Your task to perform on an android device: turn on wifi Image 0: 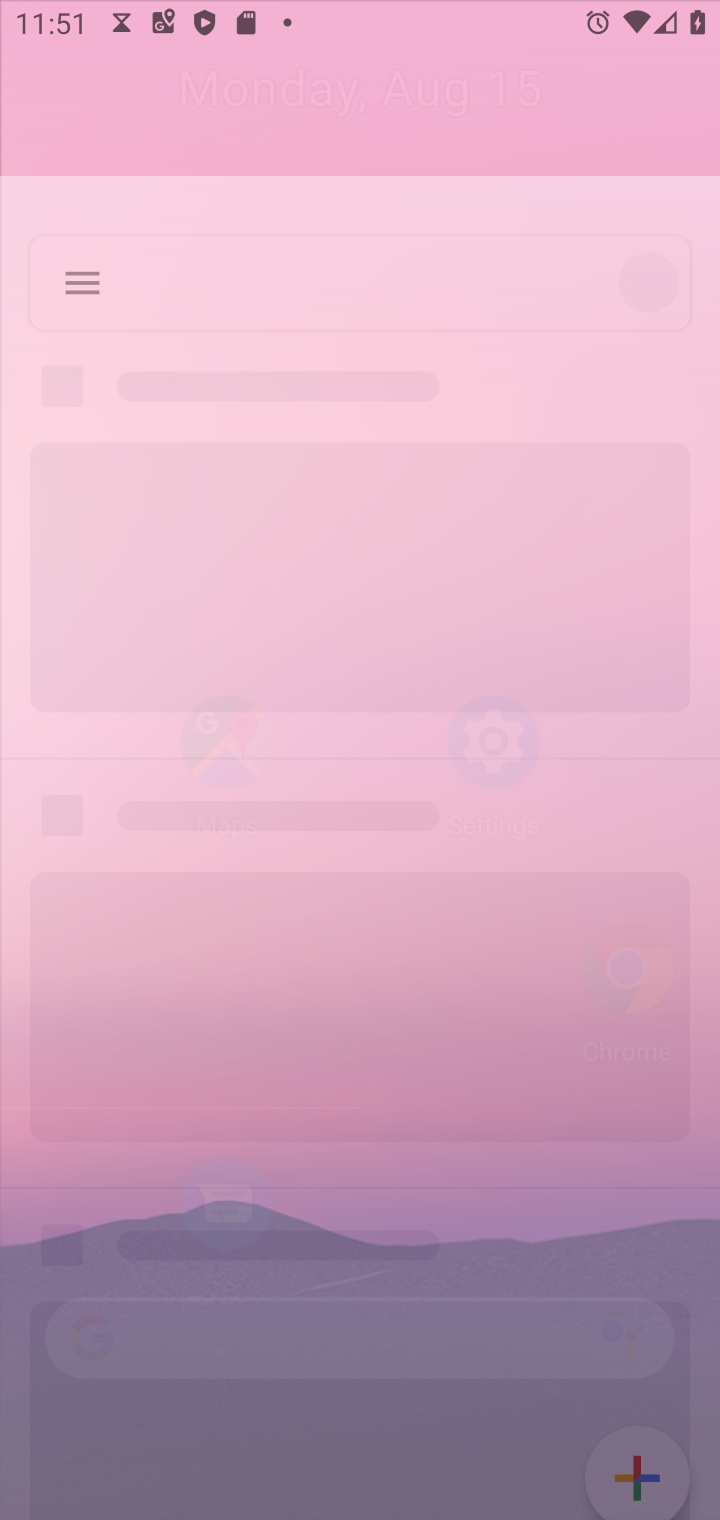
Step 0: press home button
Your task to perform on an android device: turn on wifi Image 1: 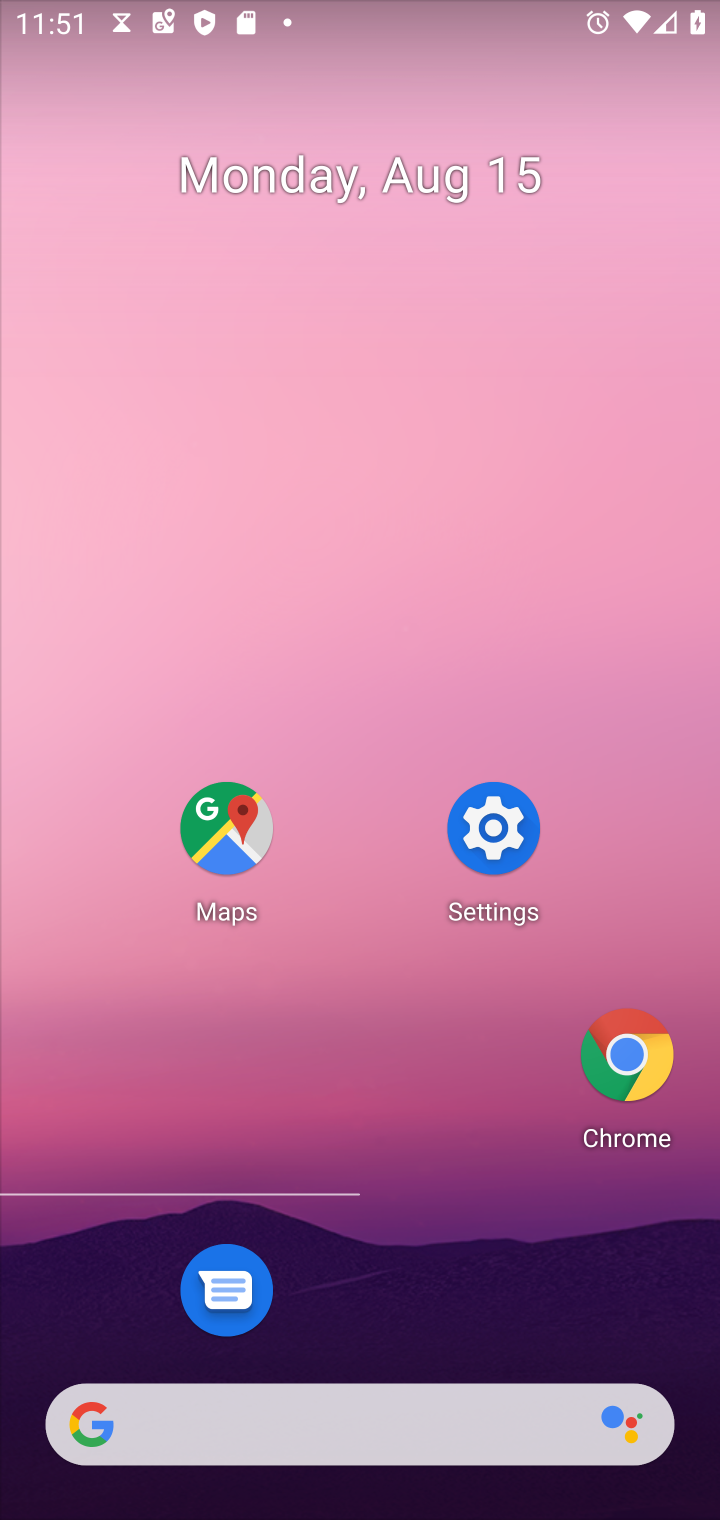
Step 1: click (480, 827)
Your task to perform on an android device: turn on wifi Image 2: 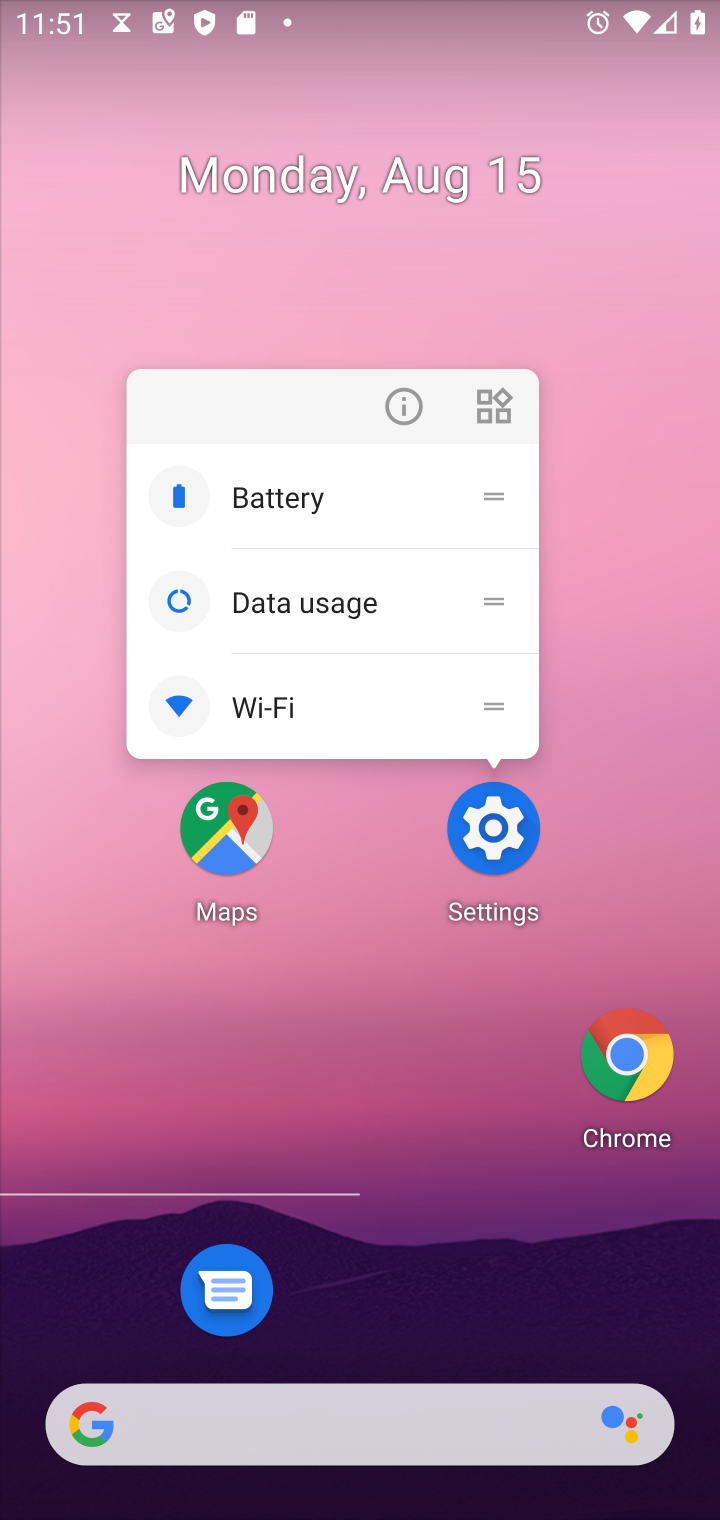
Step 2: click (480, 831)
Your task to perform on an android device: turn on wifi Image 3: 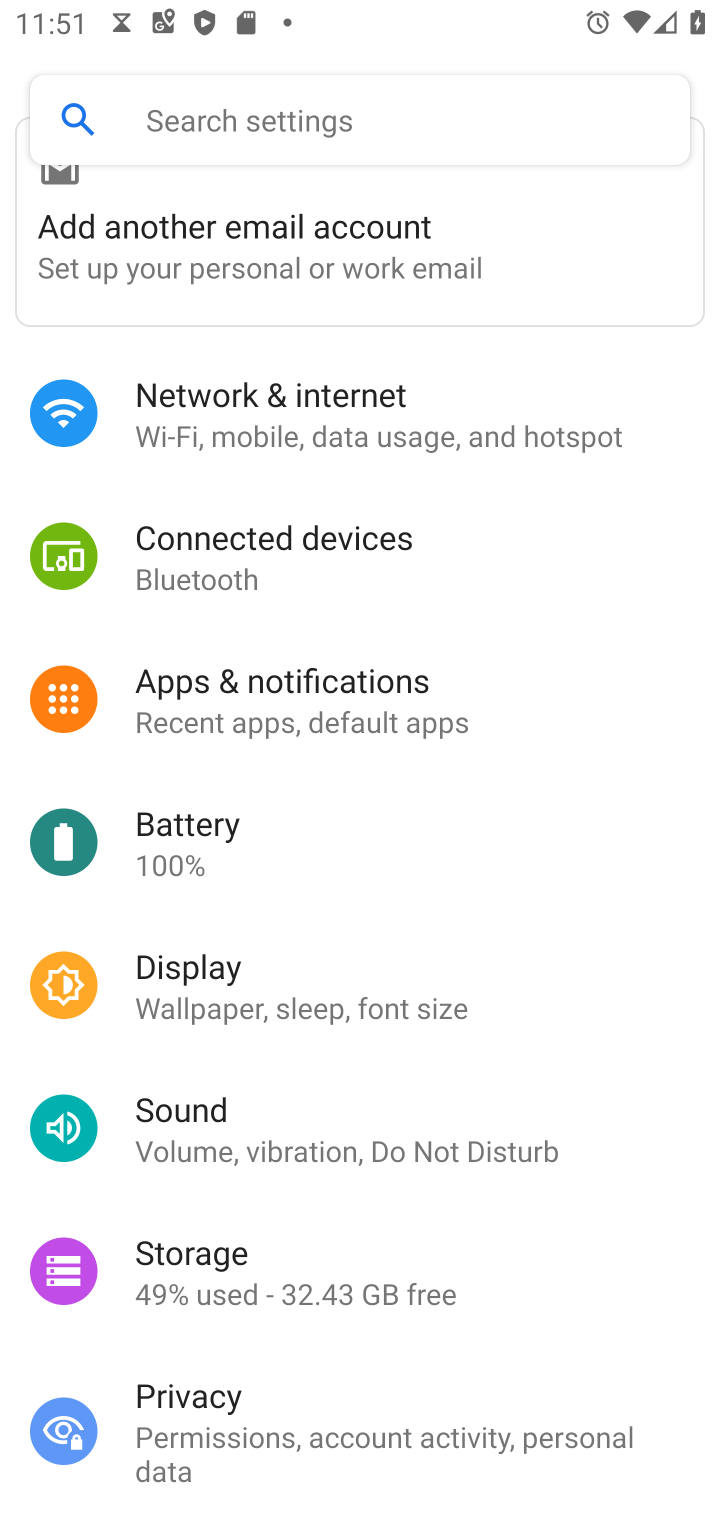
Step 3: click (287, 417)
Your task to perform on an android device: turn on wifi Image 4: 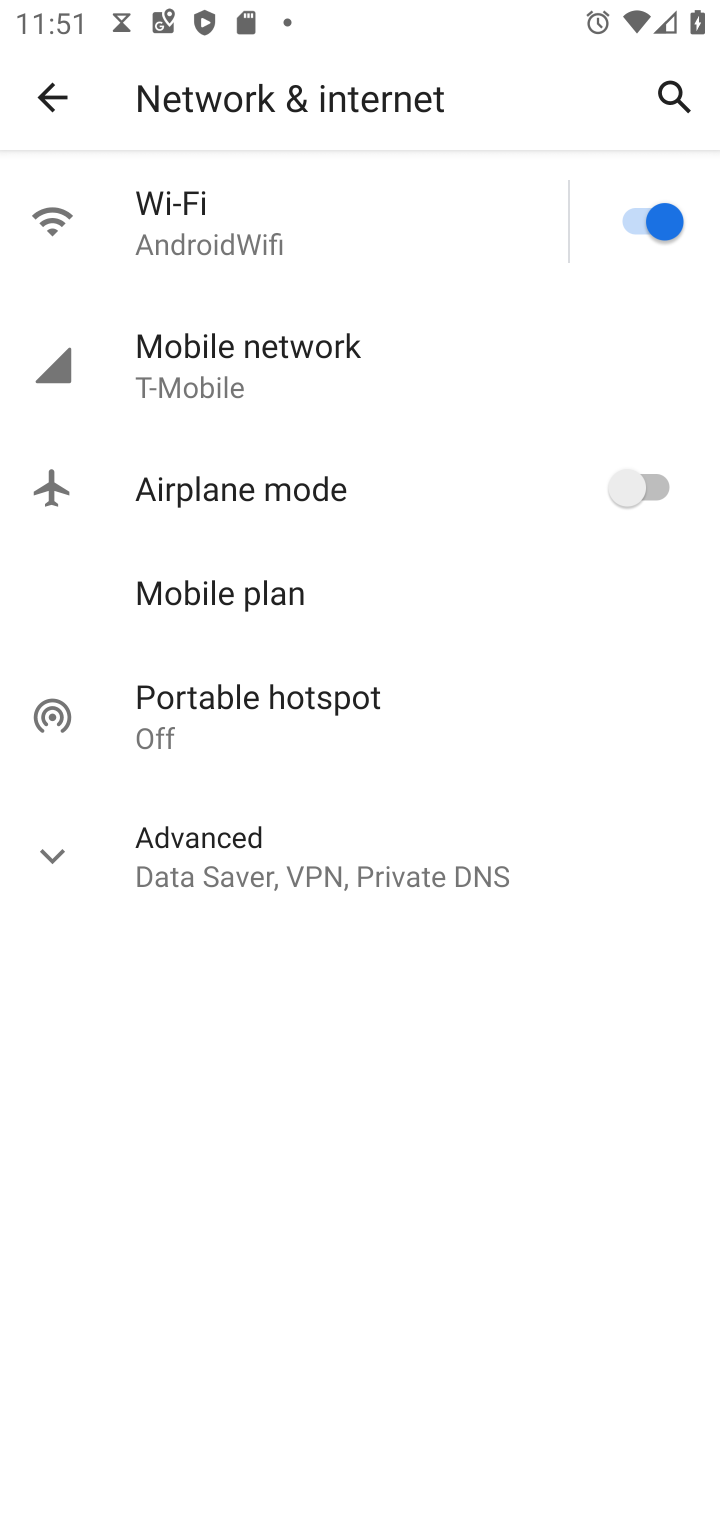
Step 4: task complete